Your task to perform on an android device: move an email to a new category in the gmail app Image 0: 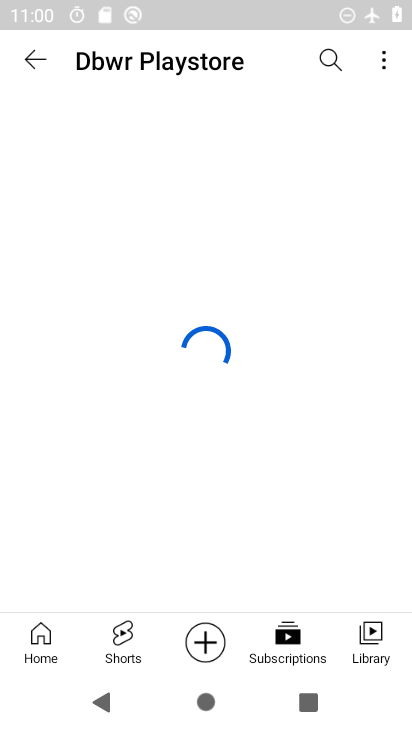
Step 0: press home button
Your task to perform on an android device: move an email to a new category in the gmail app Image 1: 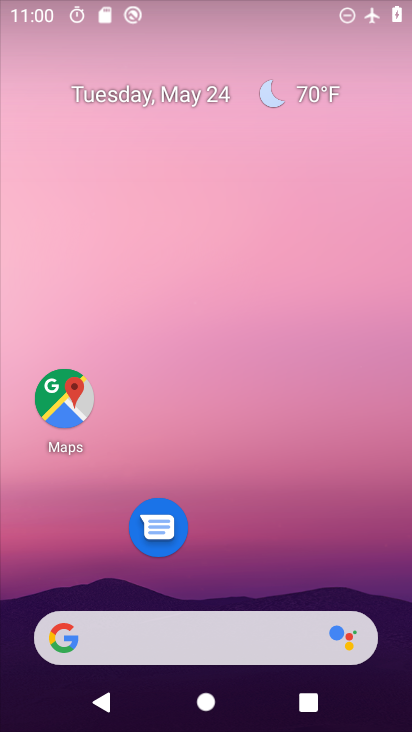
Step 1: drag from (269, 564) to (273, 82)
Your task to perform on an android device: move an email to a new category in the gmail app Image 2: 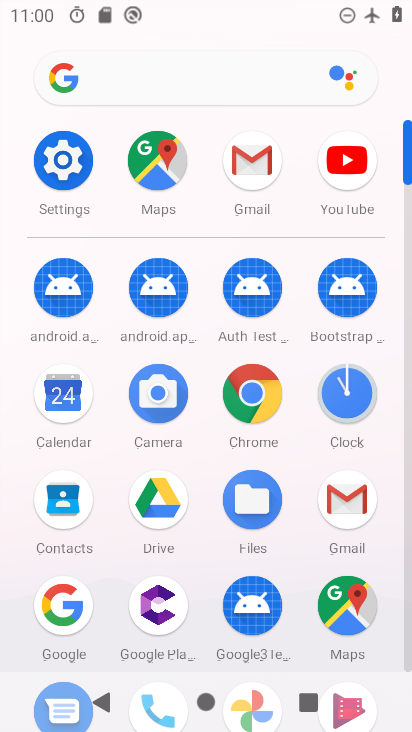
Step 2: click (338, 504)
Your task to perform on an android device: move an email to a new category in the gmail app Image 3: 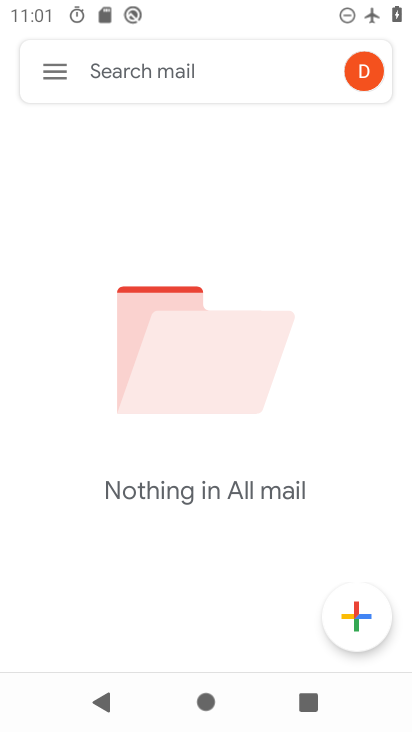
Step 3: task complete